Your task to perform on an android device: Add logitech g pro to the cart on ebay.com Image 0: 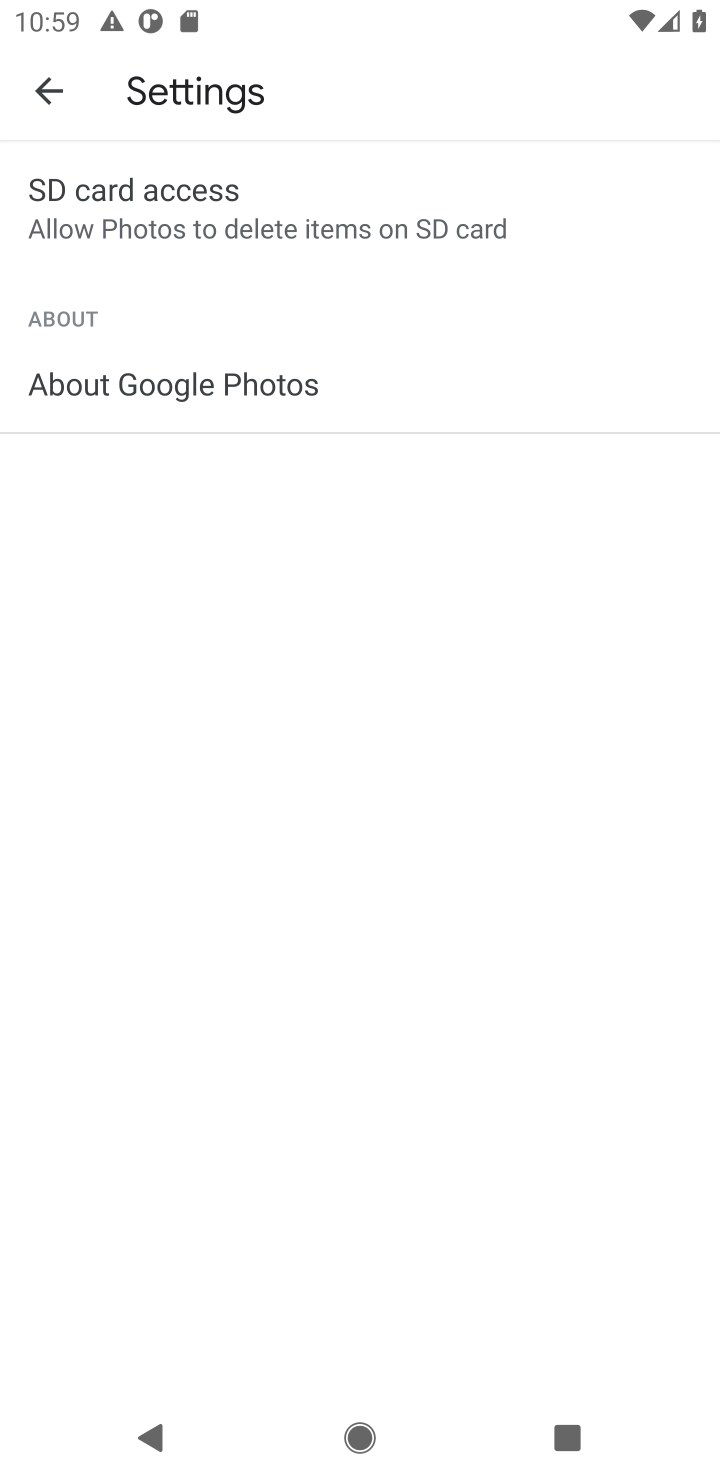
Step 0: press home button
Your task to perform on an android device: Add logitech g pro to the cart on ebay.com Image 1: 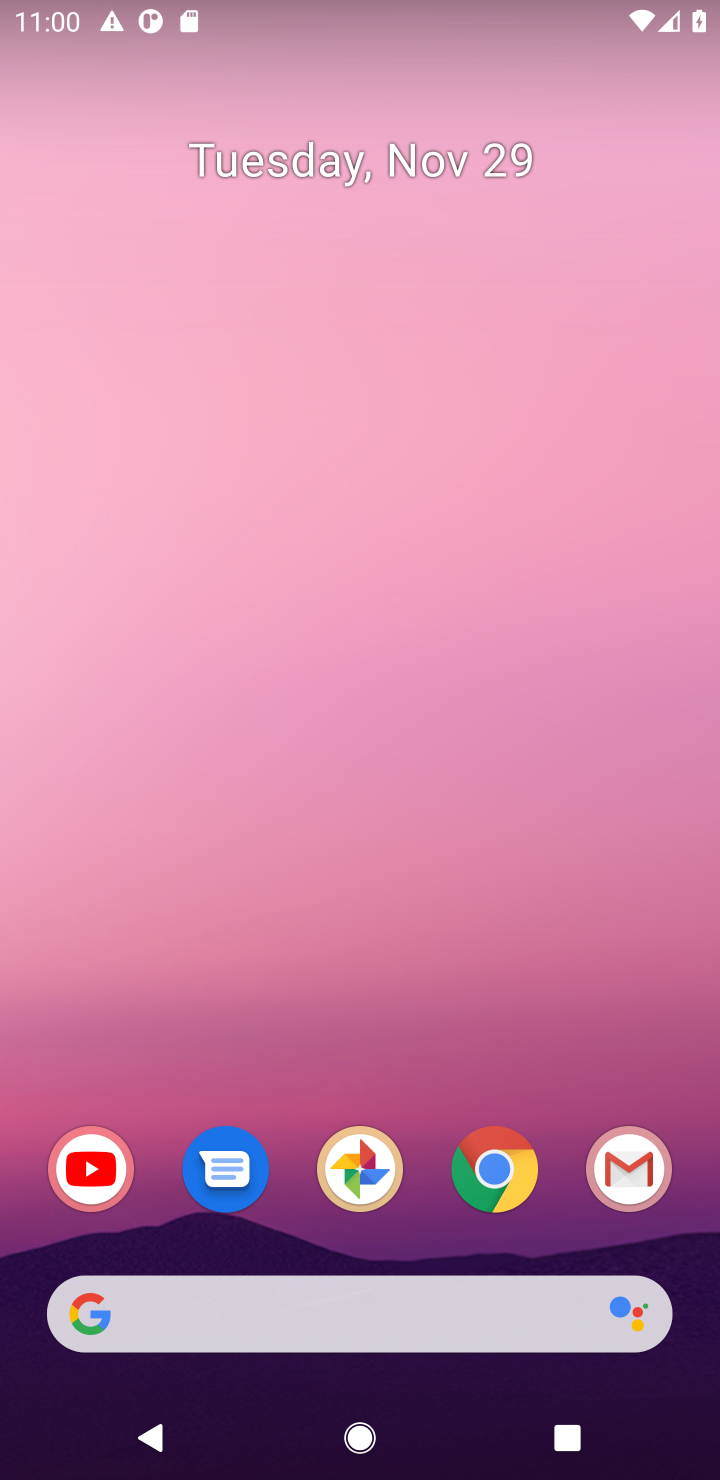
Step 1: click (426, 1326)
Your task to perform on an android device: Add logitech g pro to the cart on ebay.com Image 2: 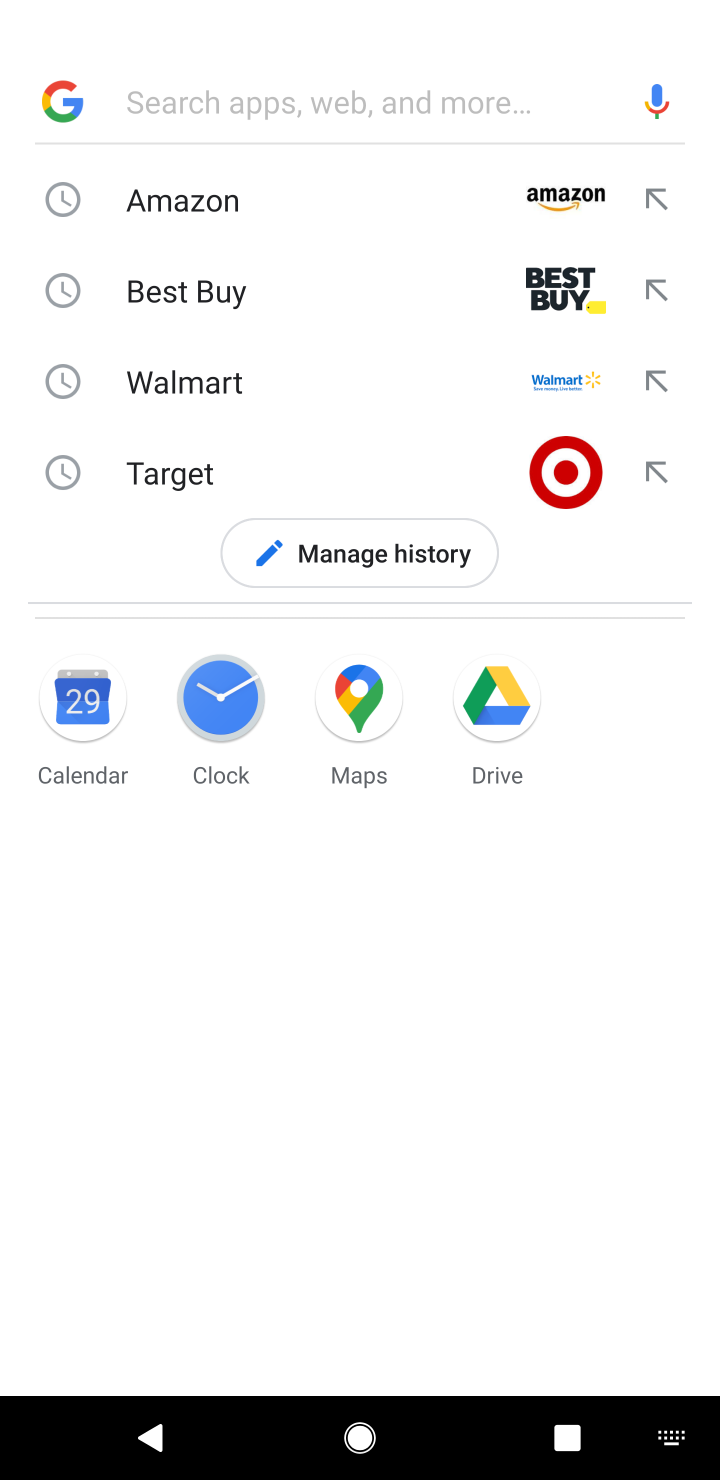
Step 2: type "ebay.com"
Your task to perform on an android device: Add logitech g pro to the cart on ebay.com Image 3: 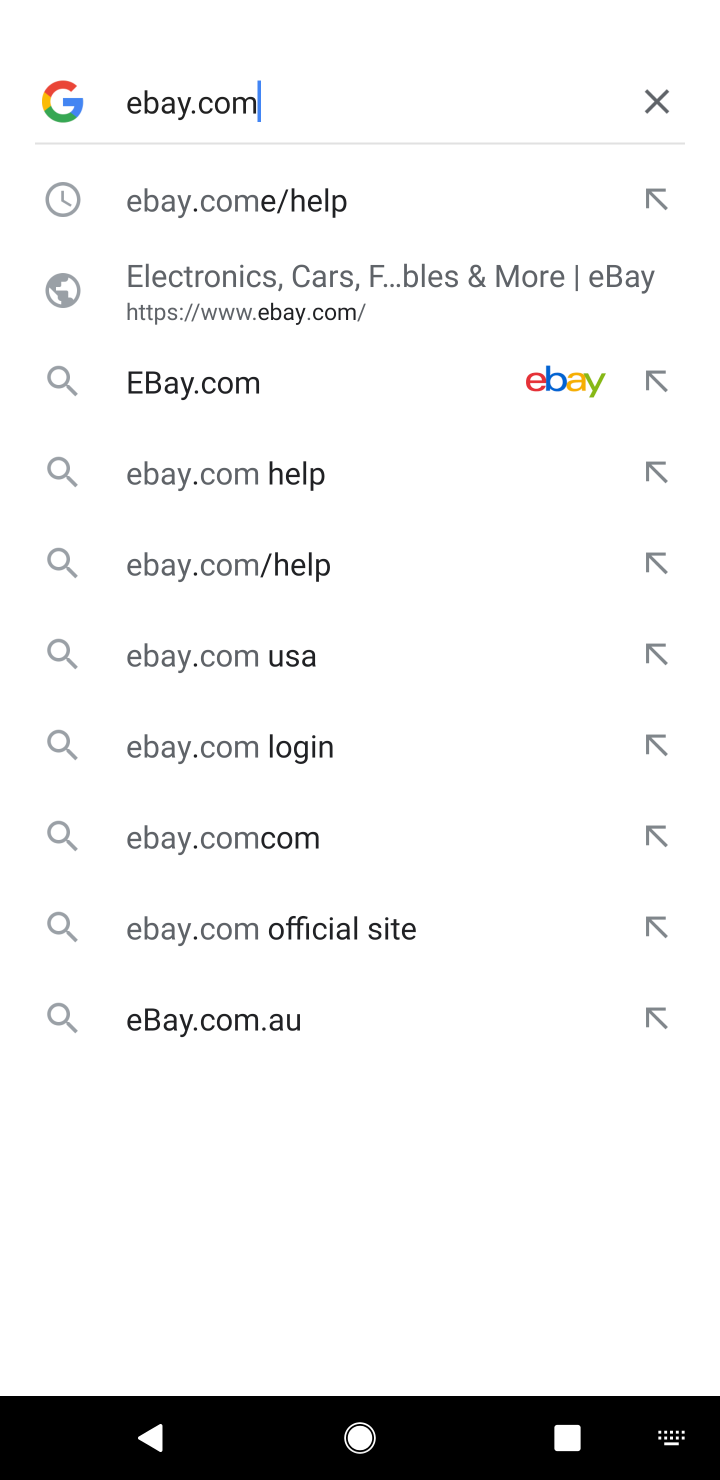
Step 3: click (166, 414)
Your task to perform on an android device: Add logitech g pro to the cart on ebay.com Image 4: 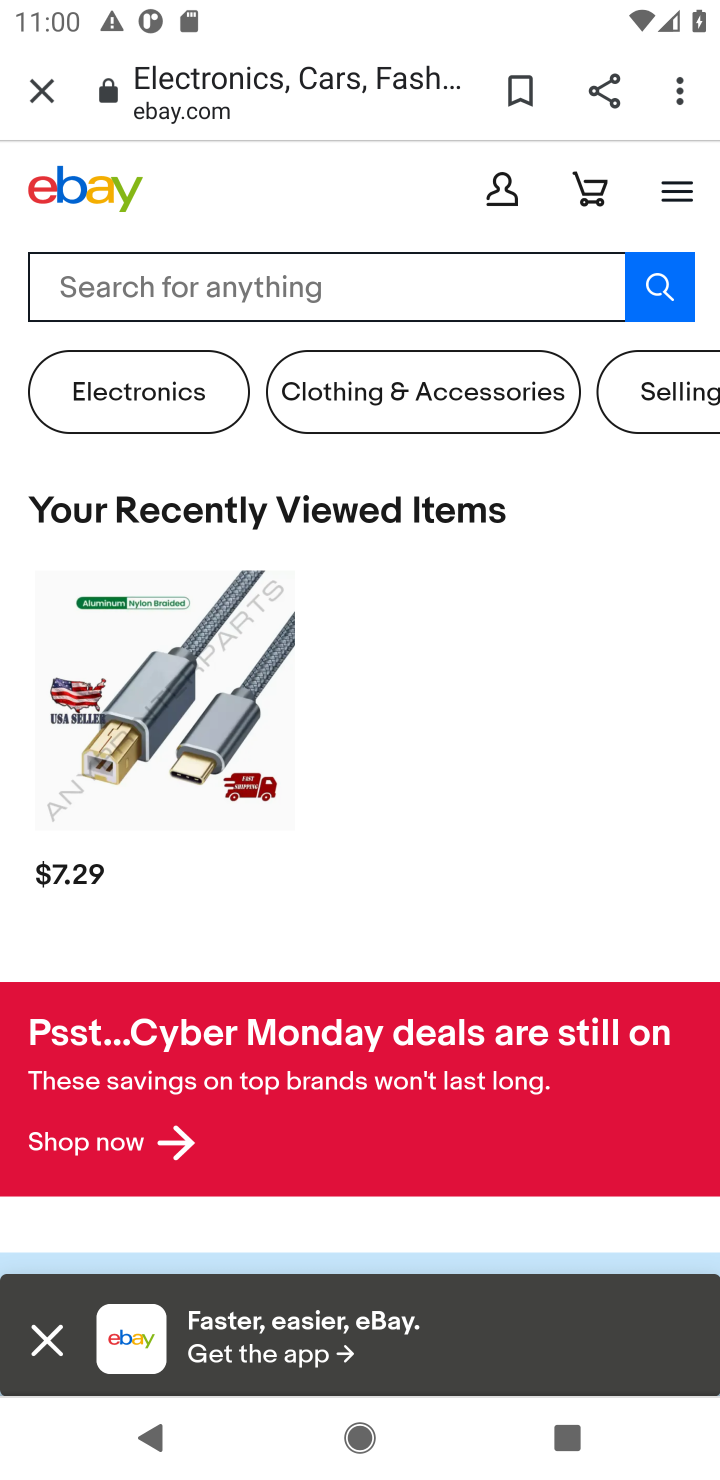
Step 4: task complete